Your task to perform on an android device: Open Chrome and go to the settings page Image 0: 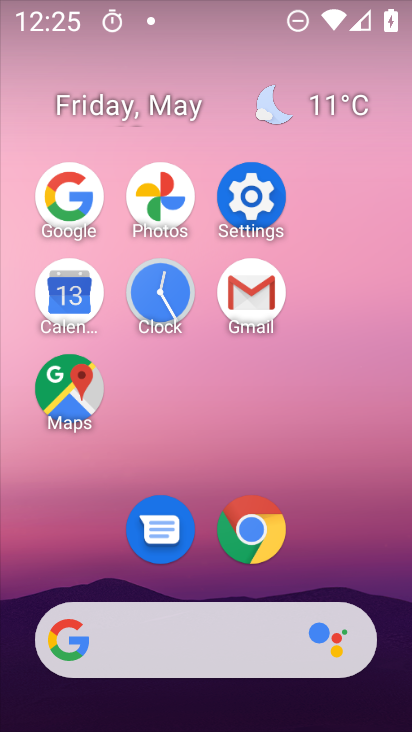
Step 0: click (247, 534)
Your task to perform on an android device: Open Chrome and go to the settings page Image 1: 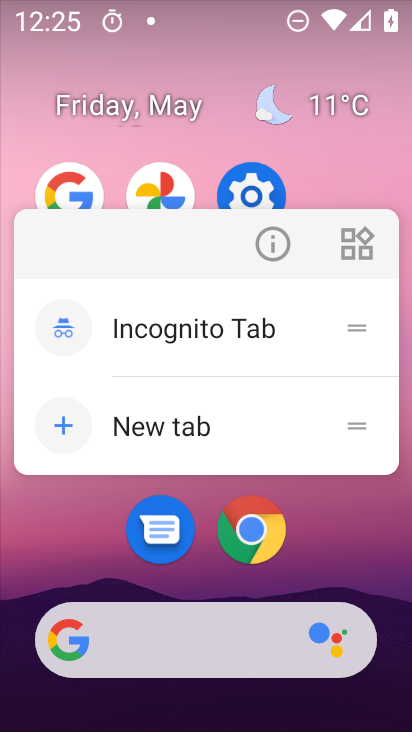
Step 1: click (247, 534)
Your task to perform on an android device: Open Chrome and go to the settings page Image 2: 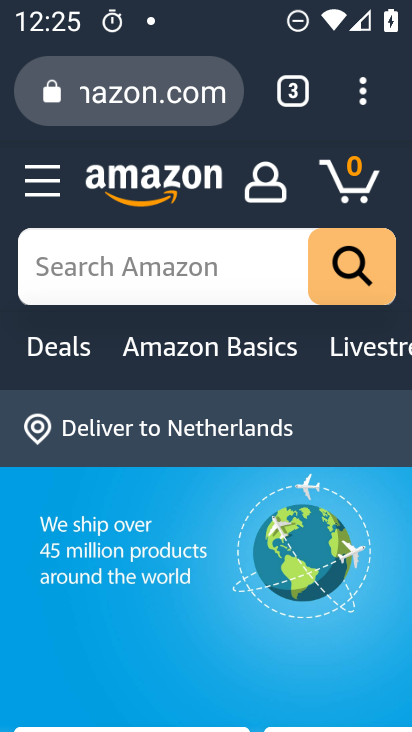
Step 2: click (372, 113)
Your task to perform on an android device: Open Chrome and go to the settings page Image 3: 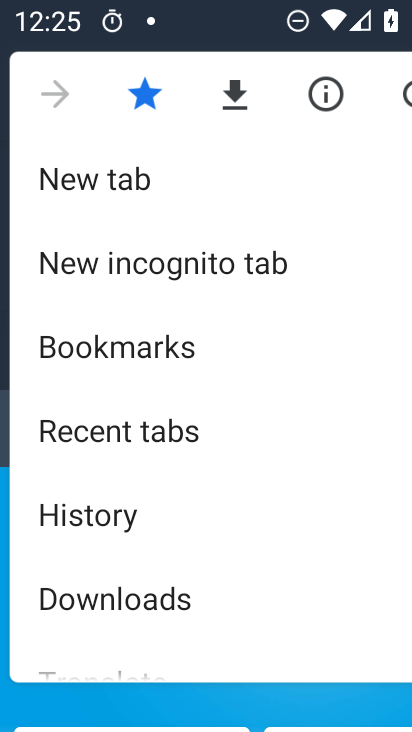
Step 3: drag from (246, 558) to (280, 175)
Your task to perform on an android device: Open Chrome and go to the settings page Image 4: 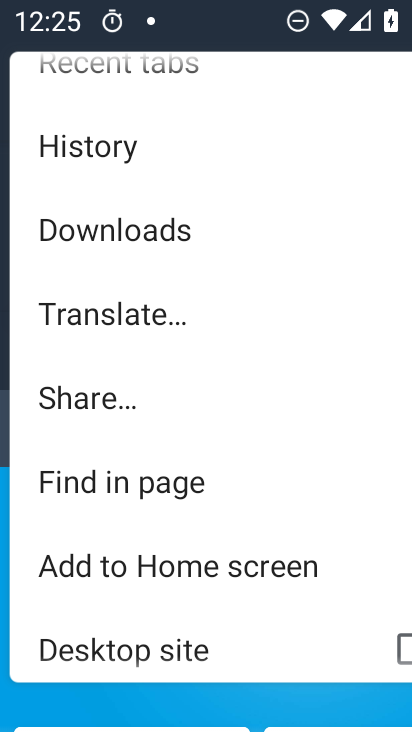
Step 4: drag from (202, 547) to (200, 176)
Your task to perform on an android device: Open Chrome and go to the settings page Image 5: 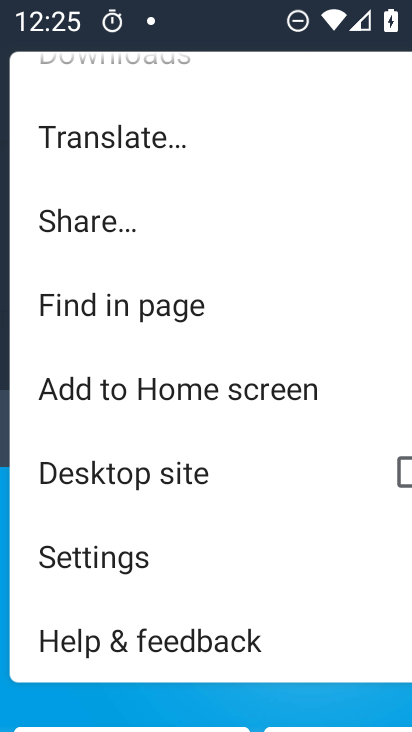
Step 5: click (190, 558)
Your task to perform on an android device: Open Chrome and go to the settings page Image 6: 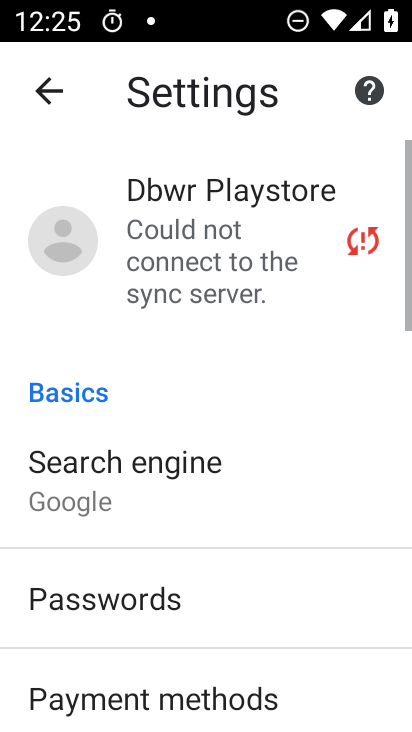
Step 6: task complete